Your task to perform on an android device: set an alarm Image 0: 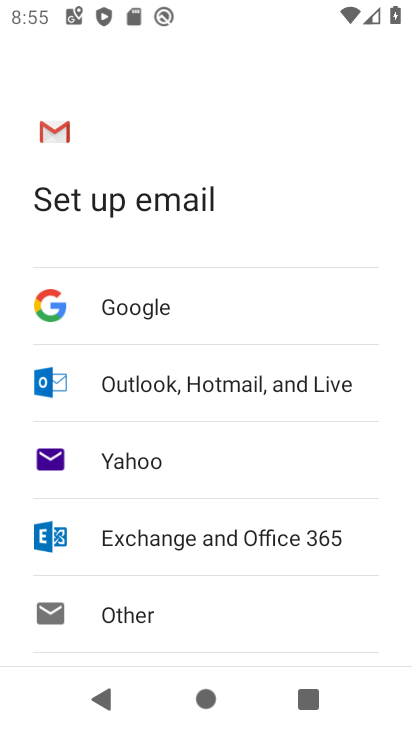
Step 0: press home button
Your task to perform on an android device: set an alarm Image 1: 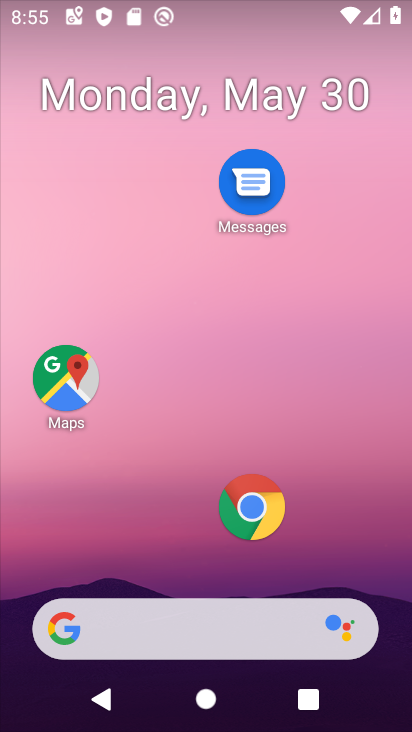
Step 1: drag from (193, 582) to (198, 77)
Your task to perform on an android device: set an alarm Image 2: 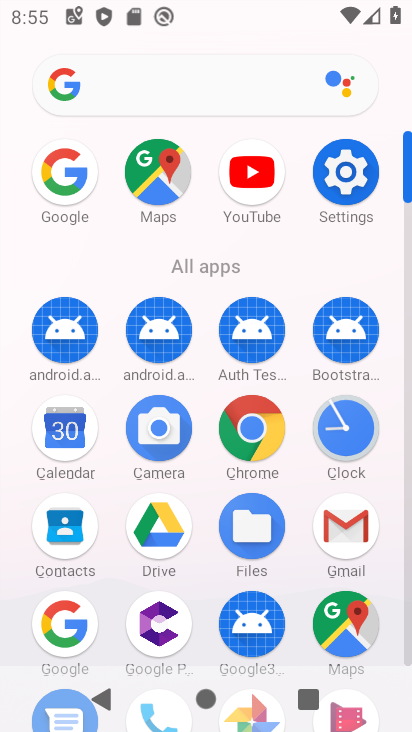
Step 2: click (348, 446)
Your task to perform on an android device: set an alarm Image 3: 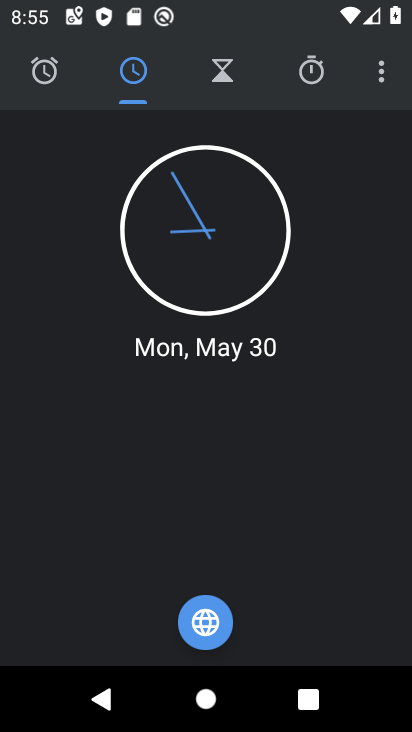
Step 3: click (45, 80)
Your task to perform on an android device: set an alarm Image 4: 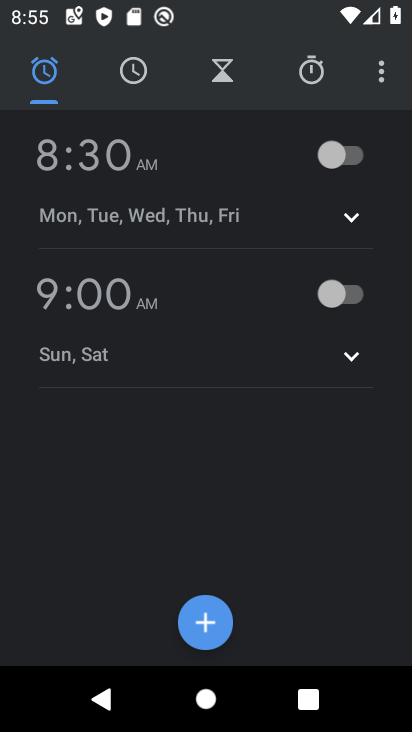
Step 4: click (345, 158)
Your task to perform on an android device: set an alarm Image 5: 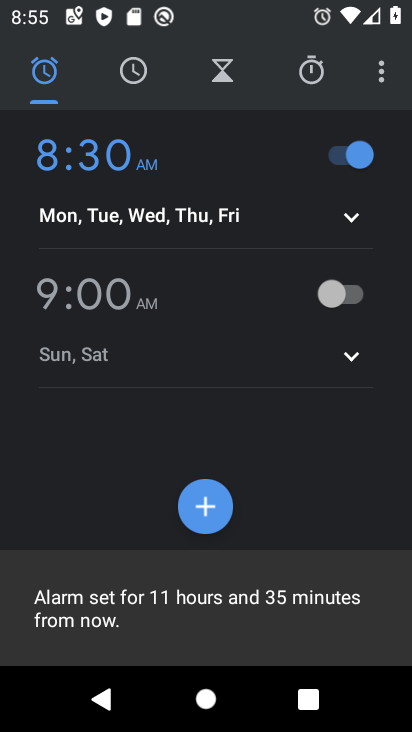
Step 5: task complete